Your task to perform on an android device: Open notification settings Image 0: 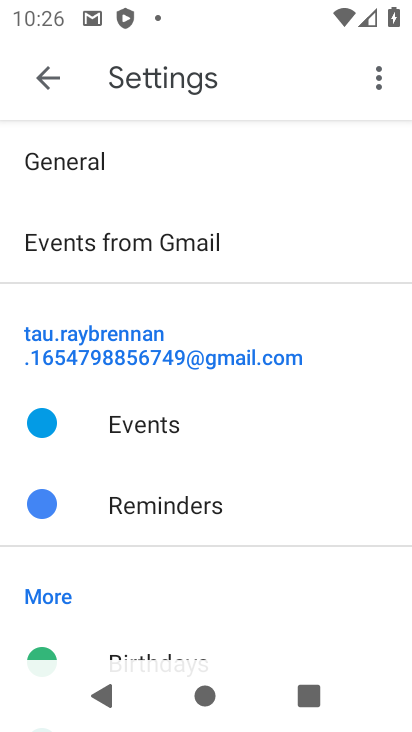
Step 0: press back button
Your task to perform on an android device: Open notification settings Image 1: 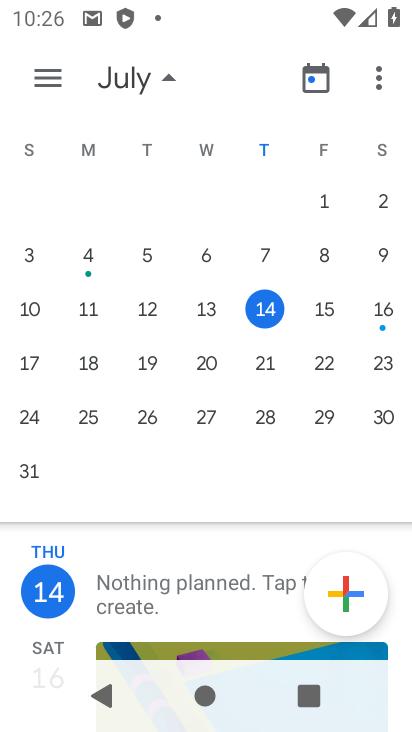
Step 1: press back button
Your task to perform on an android device: Open notification settings Image 2: 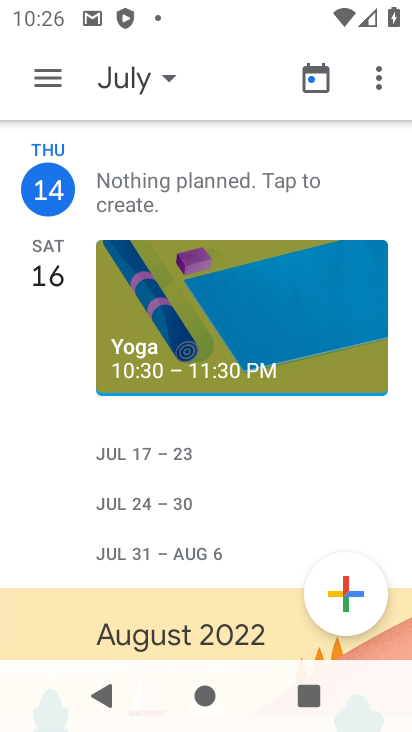
Step 2: press back button
Your task to perform on an android device: Open notification settings Image 3: 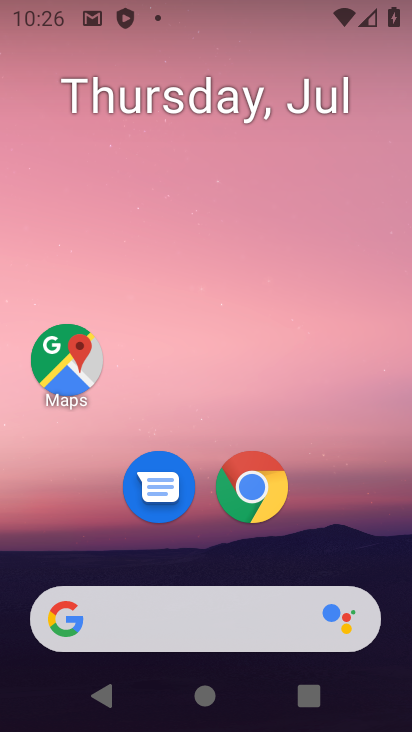
Step 3: drag from (225, 572) to (272, 76)
Your task to perform on an android device: Open notification settings Image 4: 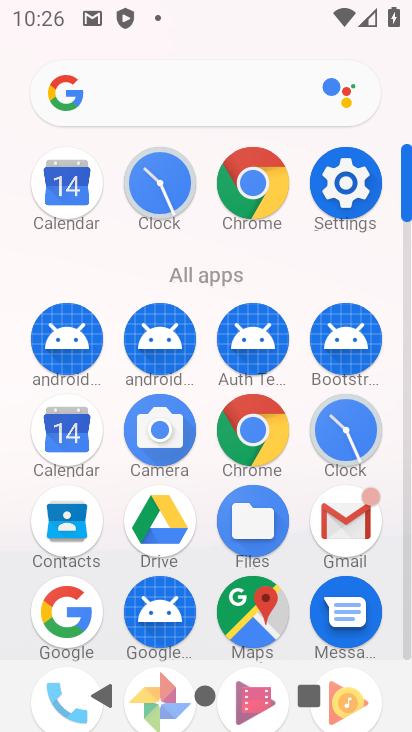
Step 4: click (350, 181)
Your task to perform on an android device: Open notification settings Image 5: 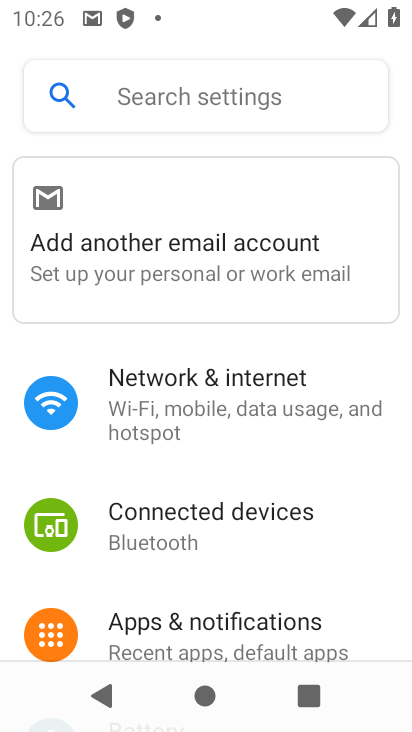
Step 5: click (167, 618)
Your task to perform on an android device: Open notification settings Image 6: 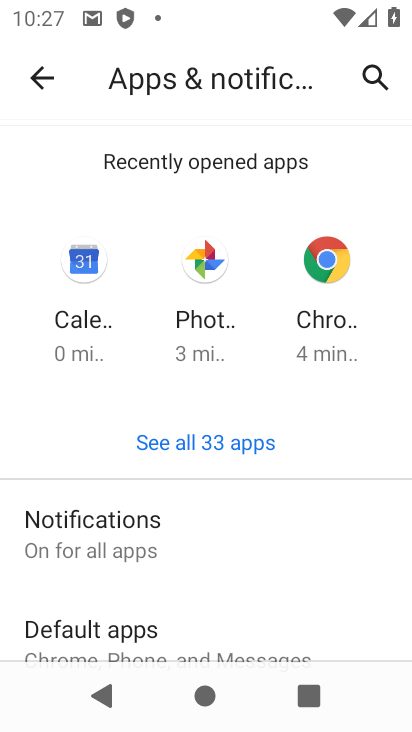
Step 6: click (157, 537)
Your task to perform on an android device: Open notification settings Image 7: 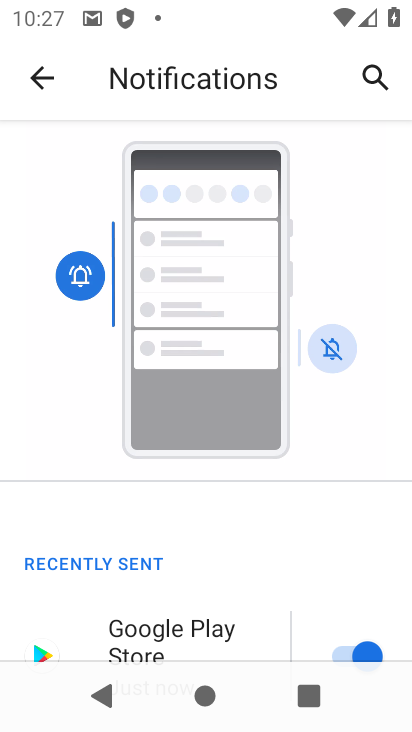
Step 7: task complete